Your task to perform on an android device: Open the calendar and show me this week's events Image 0: 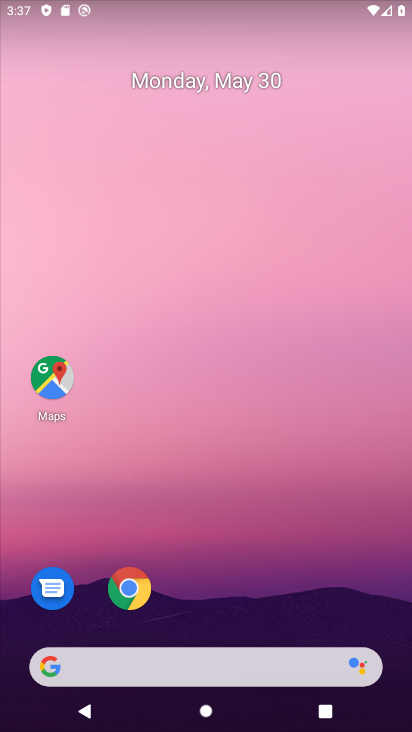
Step 0: click (282, 214)
Your task to perform on an android device: Open the calendar and show me this week's events Image 1: 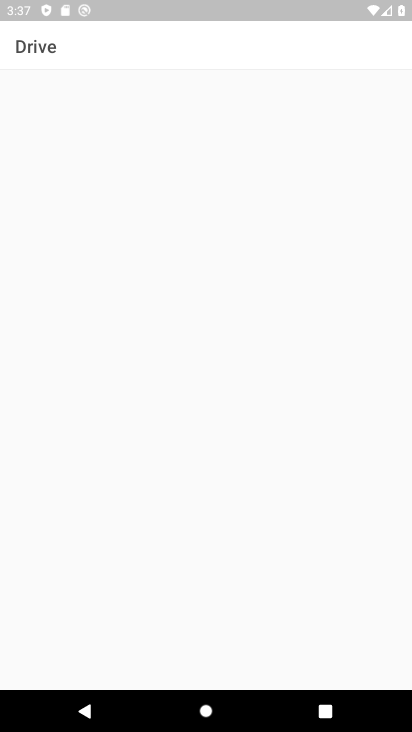
Step 1: drag from (388, 633) to (352, 243)
Your task to perform on an android device: Open the calendar and show me this week's events Image 2: 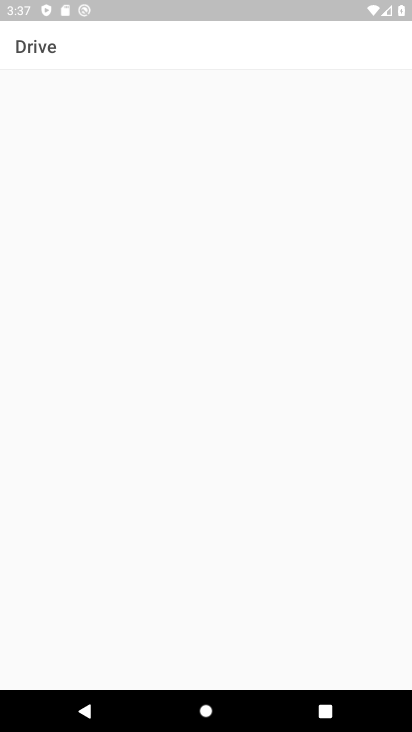
Step 2: press home button
Your task to perform on an android device: Open the calendar and show me this week's events Image 3: 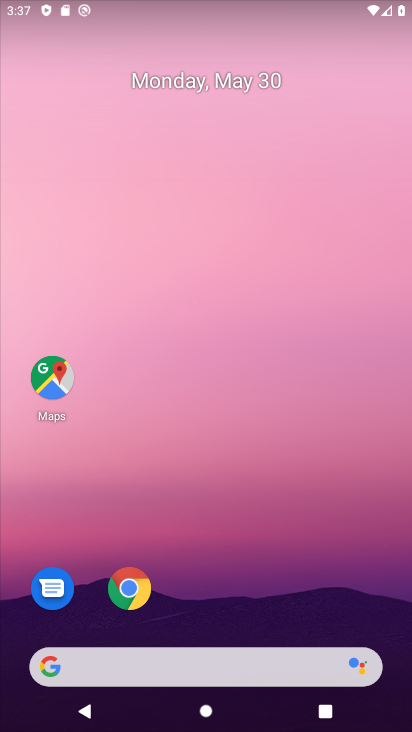
Step 3: drag from (380, 630) to (287, 30)
Your task to perform on an android device: Open the calendar and show me this week's events Image 4: 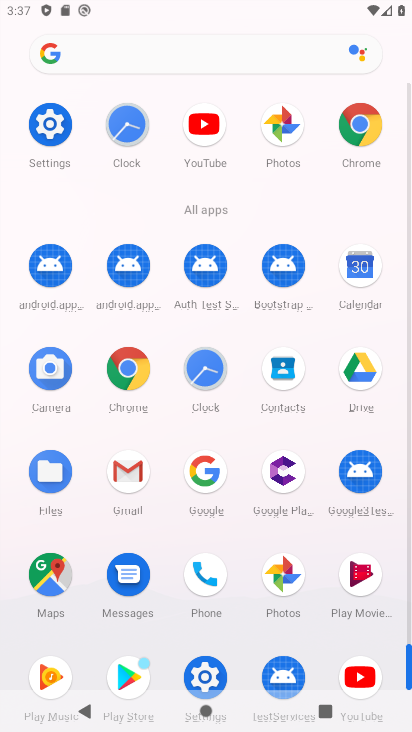
Step 4: click (359, 267)
Your task to perform on an android device: Open the calendar and show me this week's events Image 5: 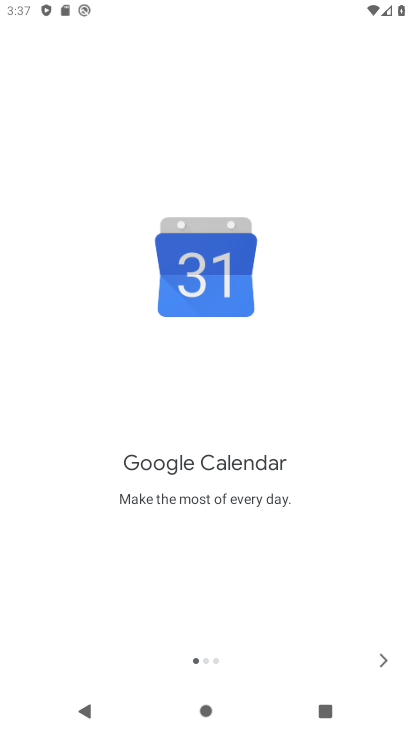
Step 5: click (384, 652)
Your task to perform on an android device: Open the calendar and show me this week's events Image 6: 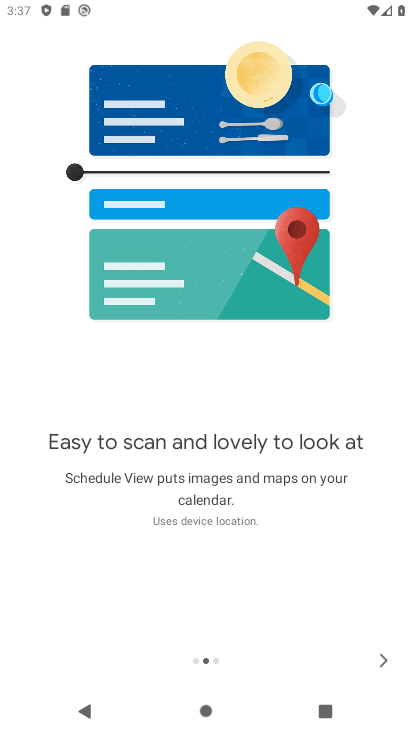
Step 6: click (382, 656)
Your task to perform on an android device: Open the calendar and show me this week's events Image 7: 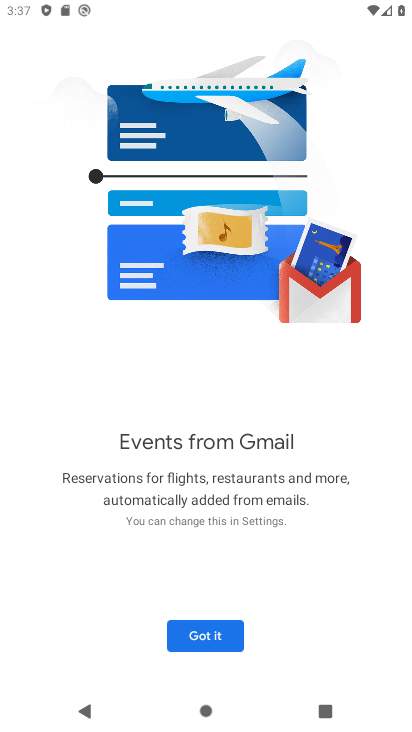
Step 7: click (204, 632)
Your task to perform on an android device: Open the calendar and show me this week's events Image 8: 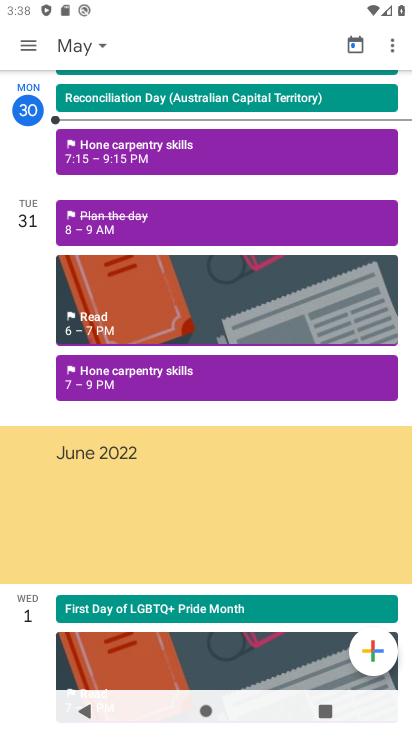
Step 8: click (29, 50)
Your task to perform on an android device: Open the calendar and show me this week's events Image 9: 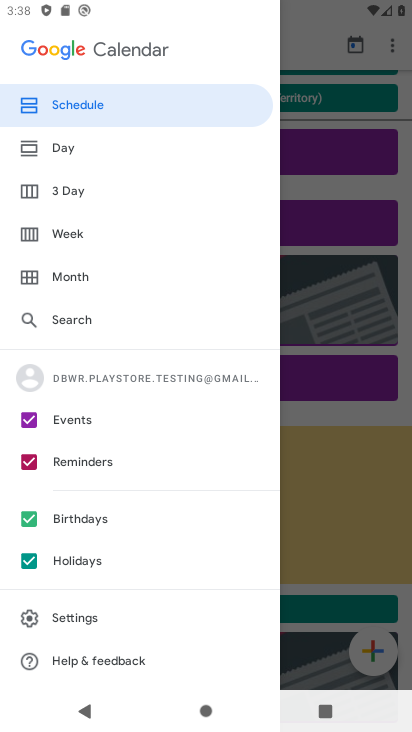
Step 9: click (70, 224)
Your task to perform on an android device: Open the calendar and show me this week's events Image 10: 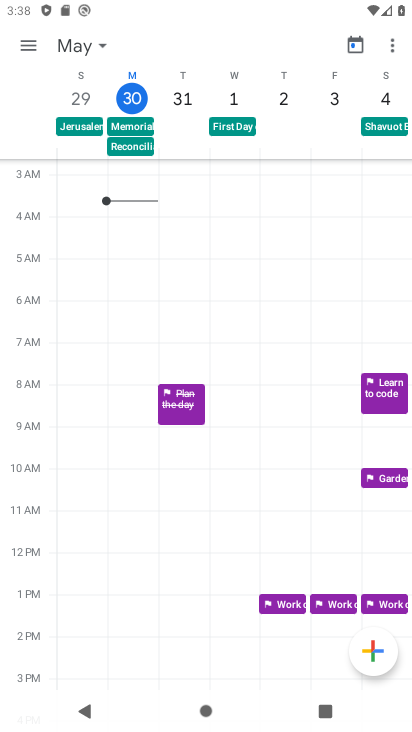
Step 10: task complete